Your task to perform on an android device: toggle data saver in the chrome app Image 0: 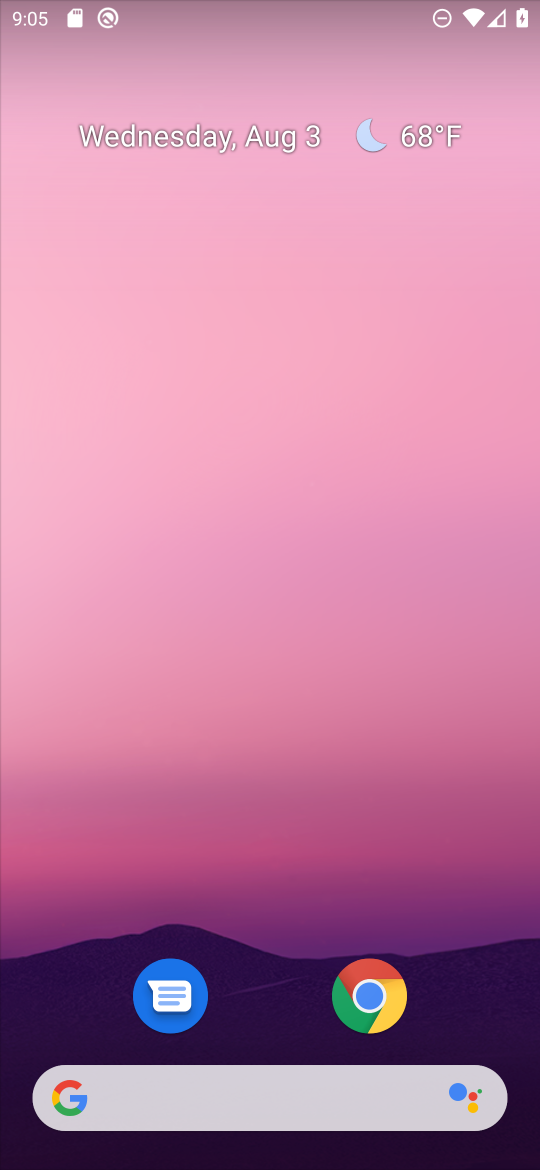
Step 0: click (382, 1001)
Your task to perform on an android device: toggle data saver in the chrome app Image 1: 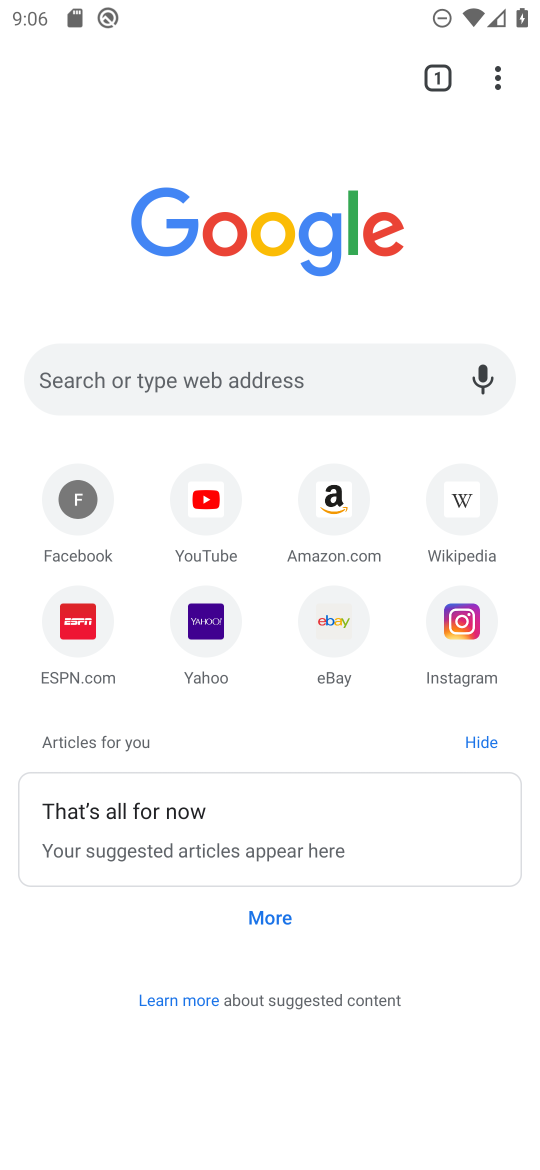
Step 1: click (497, 80)
Your task to perform on an android device: toggle data saver in the chrome app Image 2: 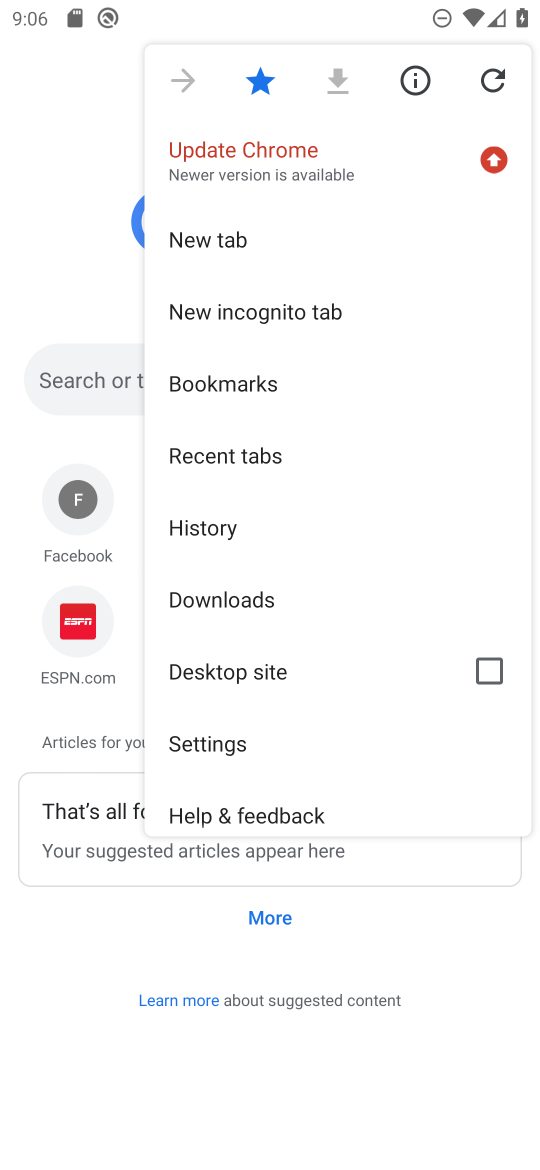
Step 2: click (233, 736)
Your task to perform on an android device: toggle data saver in the chrome app Image 3: 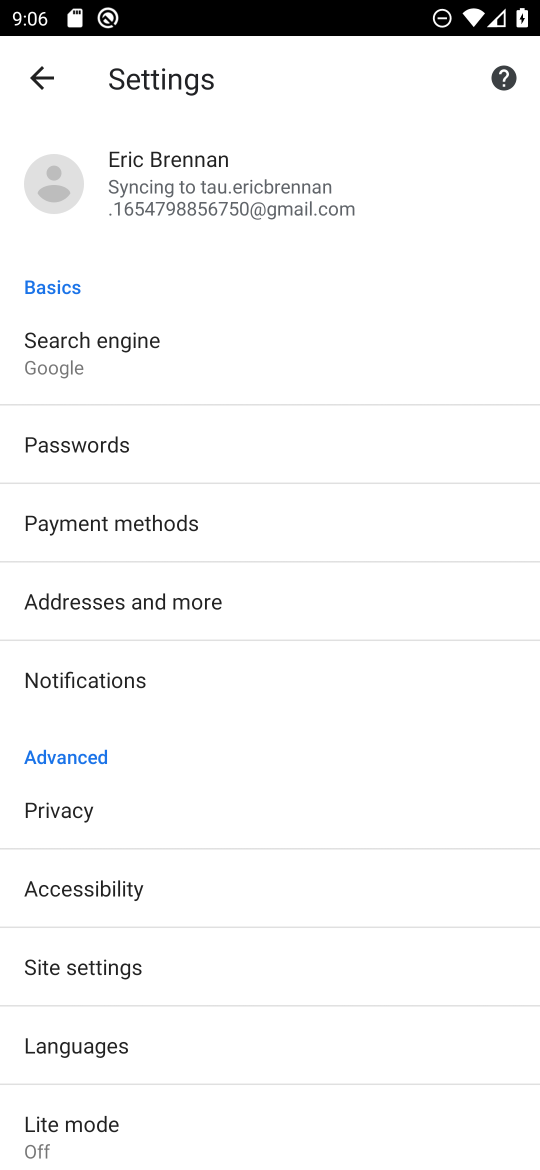
Step 3: click (168, 1131)
Your task to perform on an android device: toggle data saver in the chrome app Image 4: 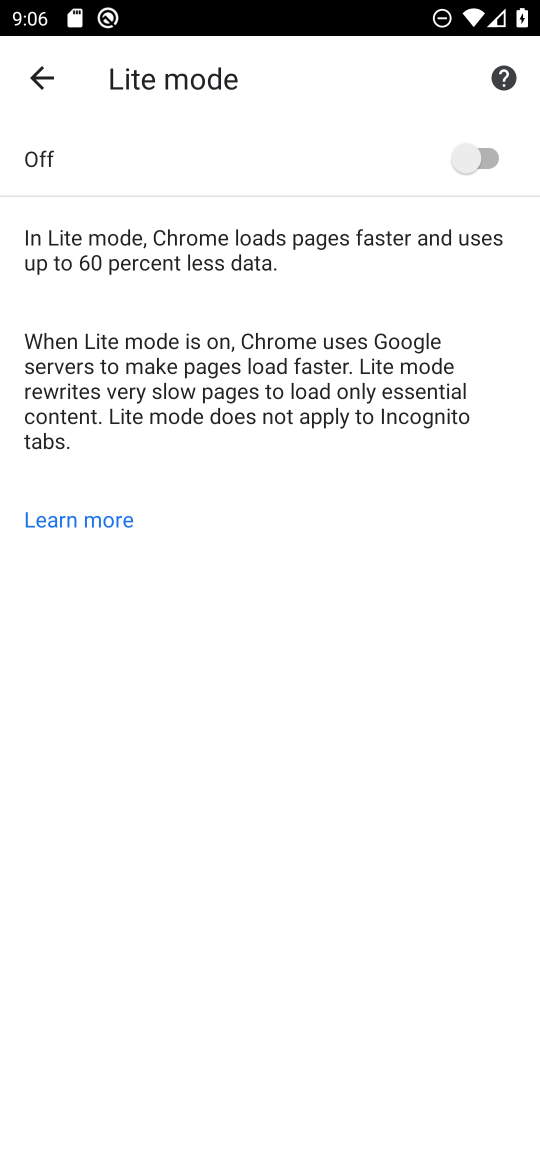
Step 4: click (489, 155)
Your task to perform on an android device: toggle data saver in the chrome app Image 5: 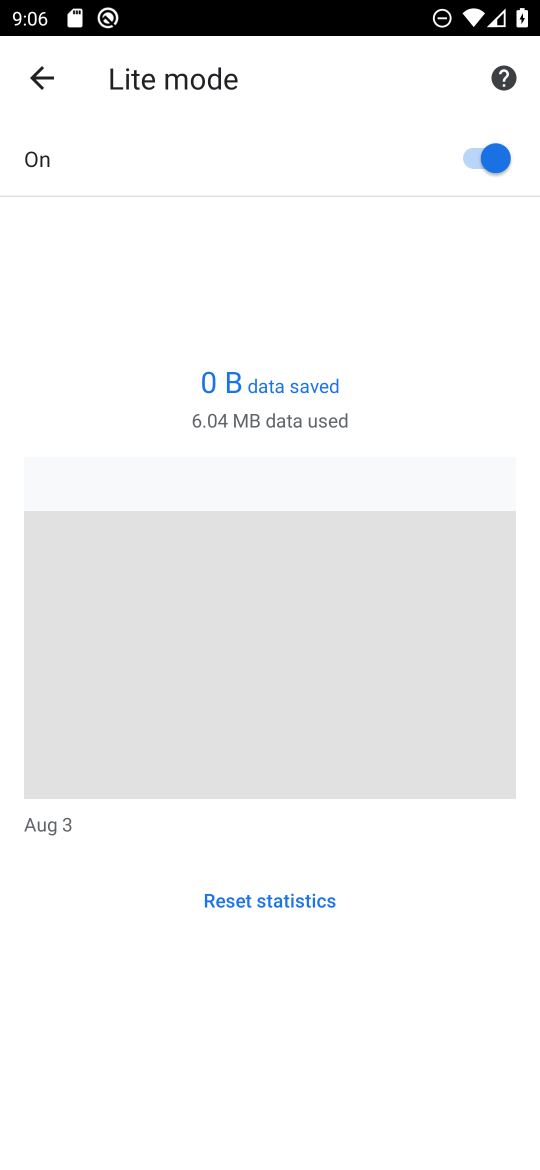
Step 5: task complete